Your task to perform on an android device: Go to Wikipedia Image 0: 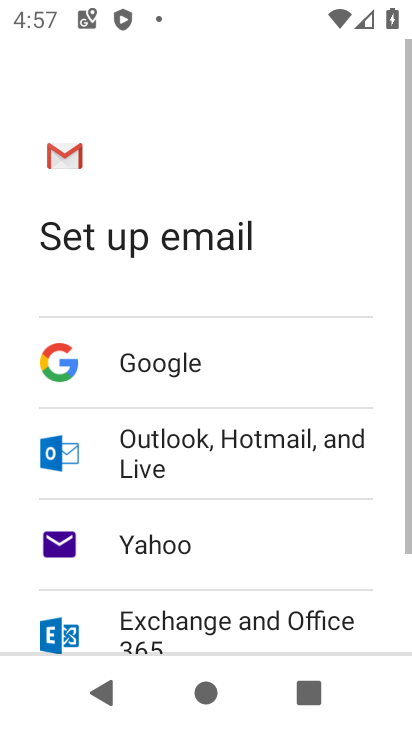
Step 0: press home button
Your task to perform on an android device: Go to Wikipedia Image 1: 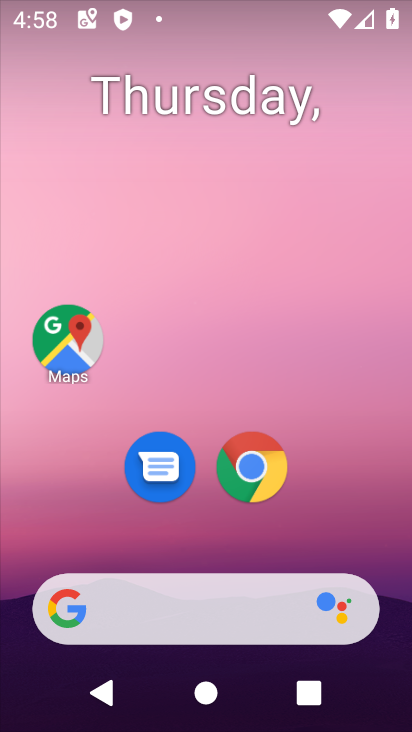
Step 1: click (270, 486)
Your task to perform on an android device: Go to Wikipedia Image 2: 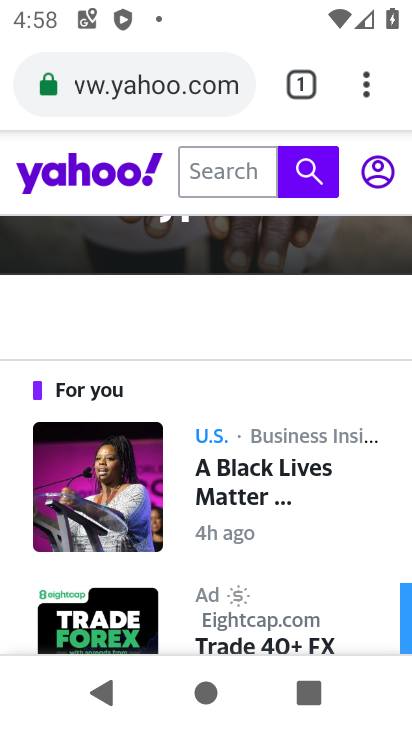
Step 2: click (309, 59)
Your task to perform on an android device: Go to Wikipedia Image 3: 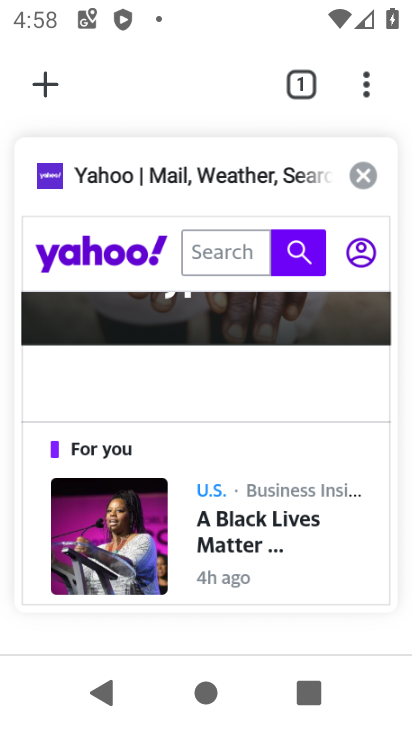
Step 3: click (63, 66)
Your task to perform on an android device: Go to Wikipedia Image 4: 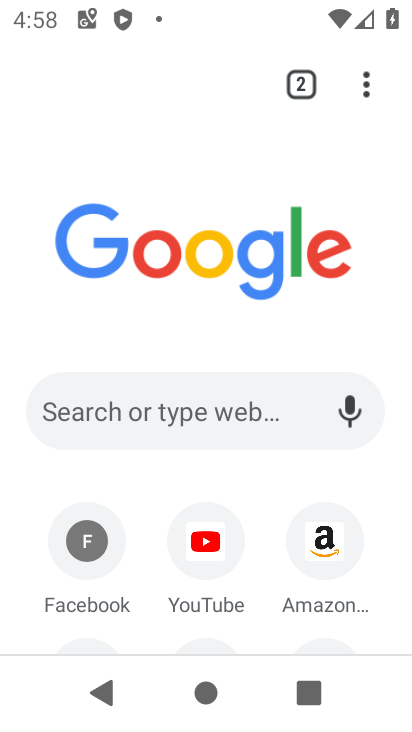
Step 4: drag from (376, 595) to (342, 231)
Your task to perform on an android device: Go to Wikipedia Image 5: 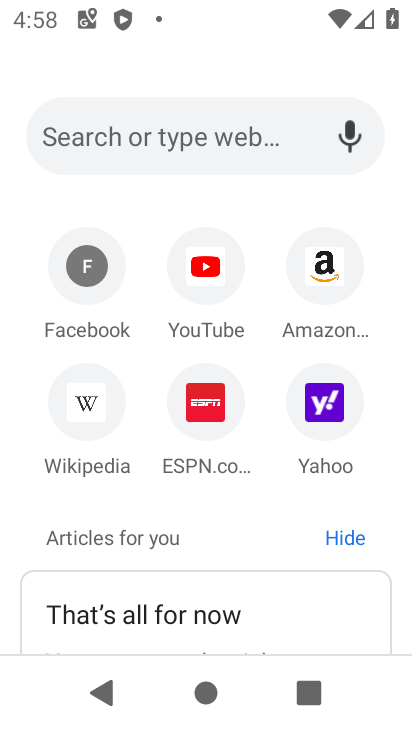
Step 5: click (102, 407)
Your task to perform on an android device: Go to Wikipedia Image 6: 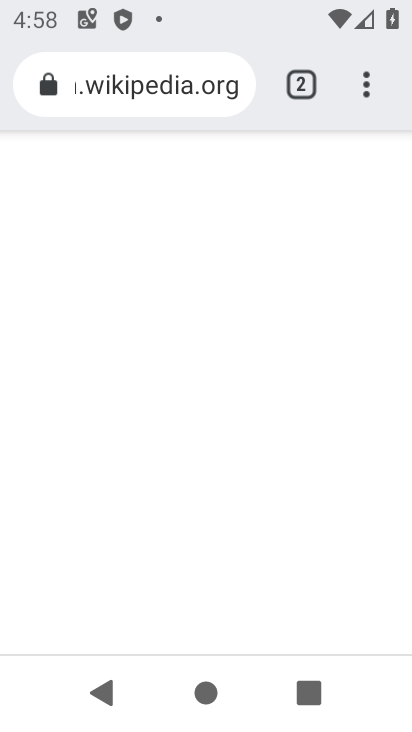
Step 6: task complete